Your task to perform on an android device: open app "Duolingo: language lessons" Image 0: 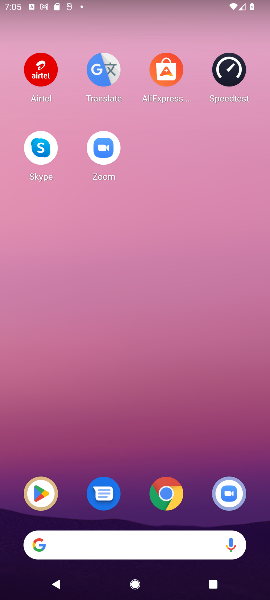
Step 0: drag from (152, 594) to (122, 74)
Your task to perform on an android device: open app "Duolingo: language lessons" Image 1: 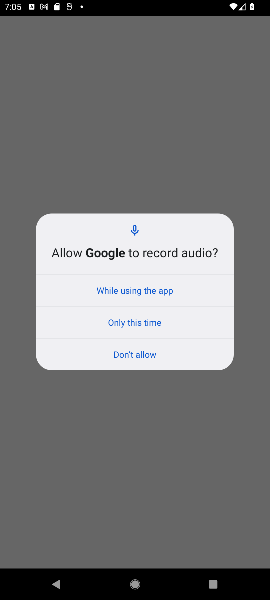
Step 1: press home button
Your task to perform on an android device: open app "Duolingo: language lessons" Image 2: 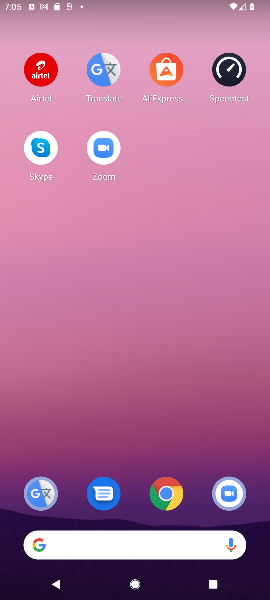
Step 2: drag from (151, 596) to (143, 127)
Your task to perform on an android device: open app "Duolingo: language lessons" Image 3: 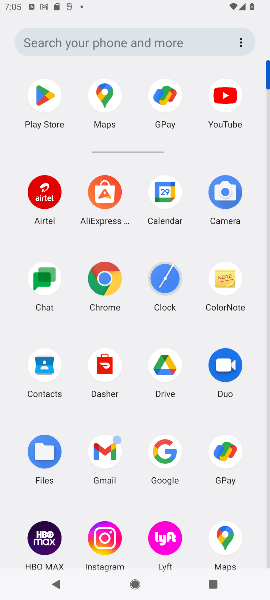
Step 3: click (44, 93)
Your task to perform on an android device: open app "Duolingo: language lessons" Image 4: 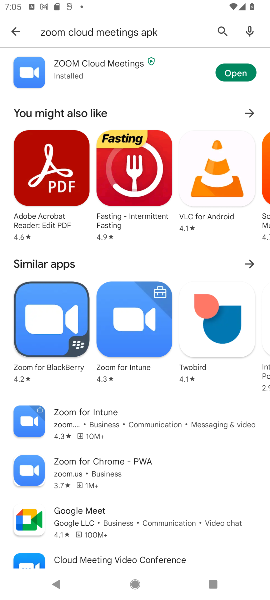
Step 4: click (221, 28)
Your task to perform on an android device: open app "Duolingo: language lessons" Image 5: 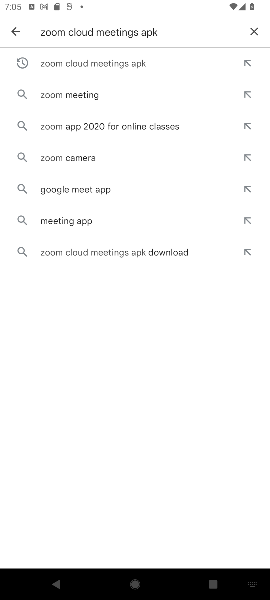
Step 5: click (251, 30)
Your task to perform on an android device: open app "Duolingo: language lessons" Image 6: 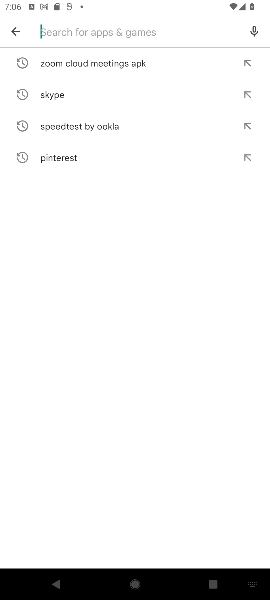
Step 6: type "Duolingo: language lessons"
Your task to perform on an android device: open app "Duolingo: language lessons" Image 7: 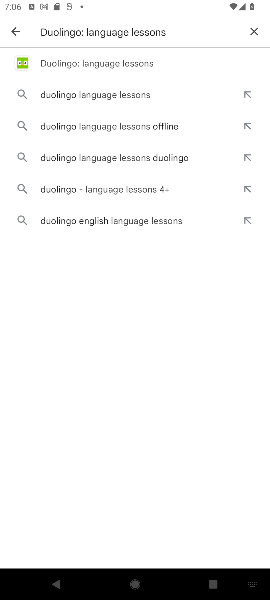
Step 7: click (136, 67)
Your task to perform on an android device: open app "Duolingo: language lessons" Image 8: 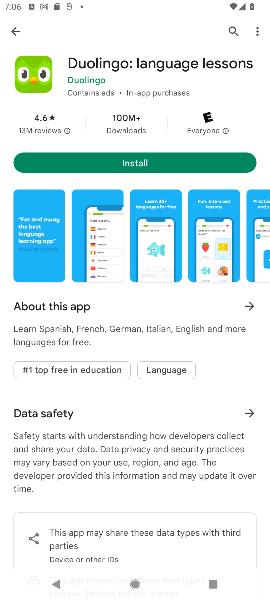
Step 8: task complete